Your task to perform on an android device: Open Yahoo.com Image 0: 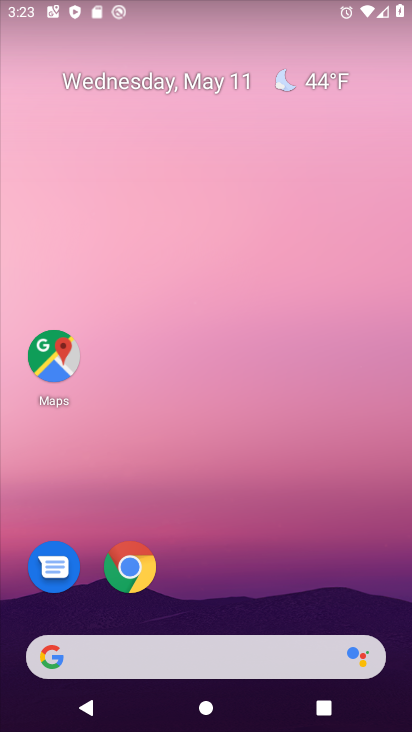
Step 0: drag from (247, 488) to (190, 3)
Your task to perform on an android device: Open Yahoo.com Image 1: 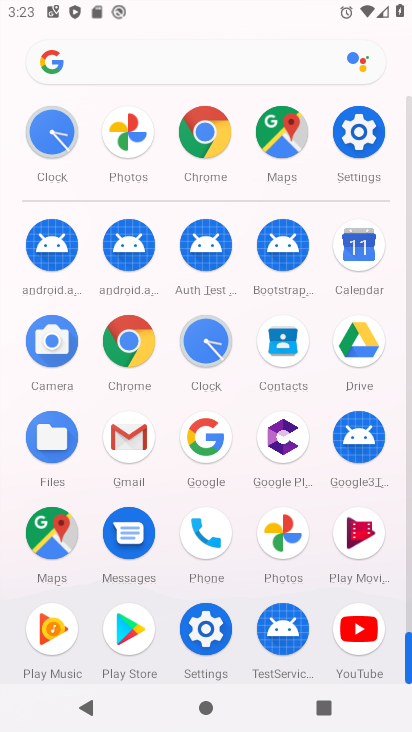
Step 1: click (126, 334)
Your task to perform on an android device: Open Yahoo.com Image 2: 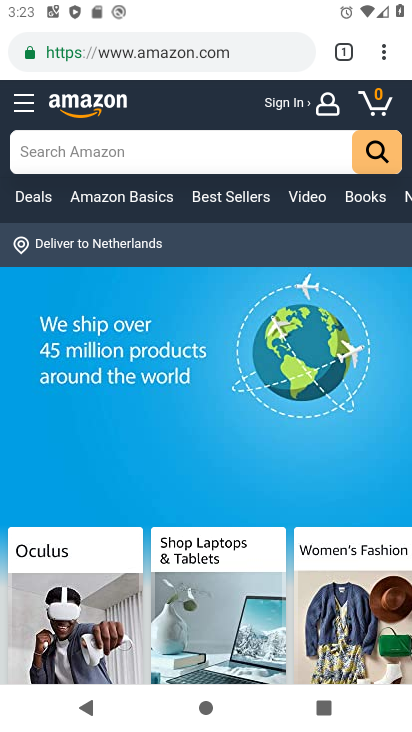
Step 2: click (149, 51)
Your task to perform on an android device: Open Yahoo.com Image 3: 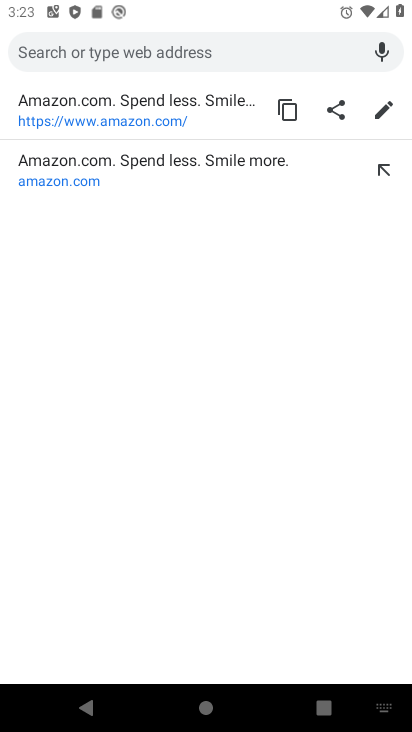
Step 3: type "Yahoo.com"
Your task to perform on an android device: Open Yahoo.com Image 4: 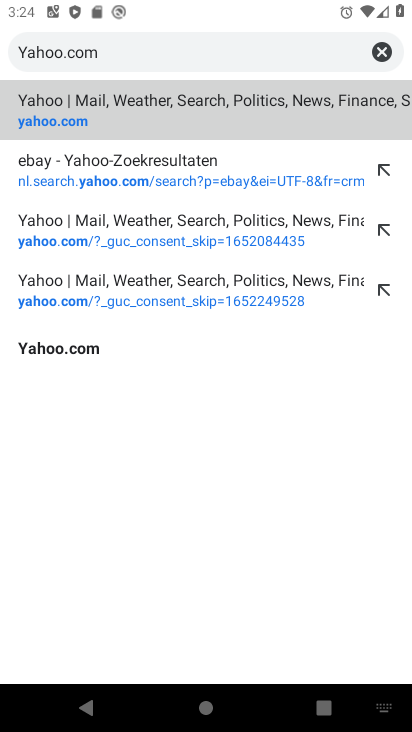
Step 4: click (229, 109)
Your task to perform on an android device: Open Yahoo.com Image 5: 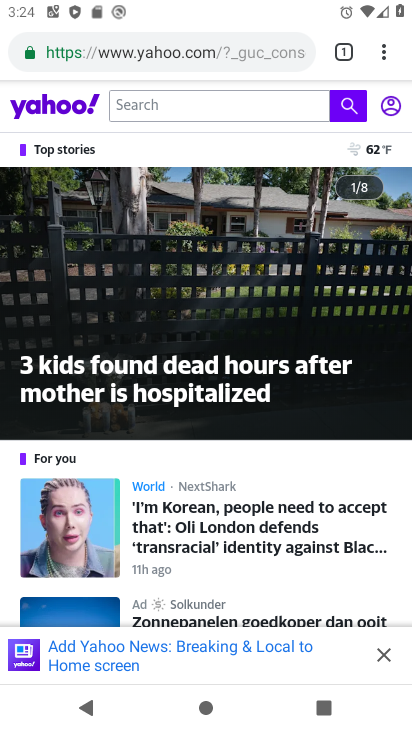
Step 5: task complete